Your task to perform on an android device: Open accessibility settings Image 0: 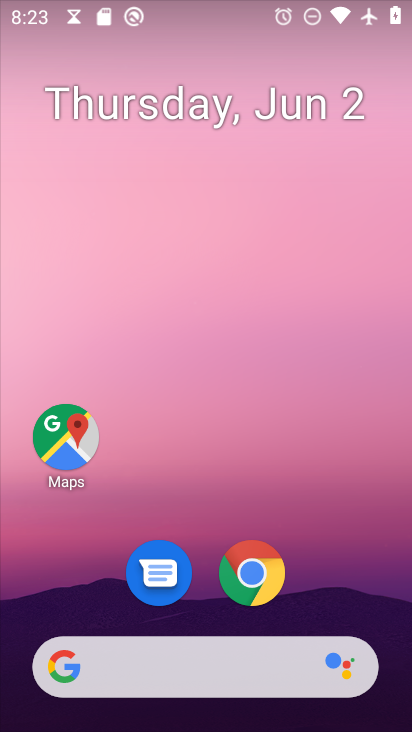
Step 0: drag from (205, 669) to (328, 105)
Your task to perform on an android device: Open accessibility settings Image 1: 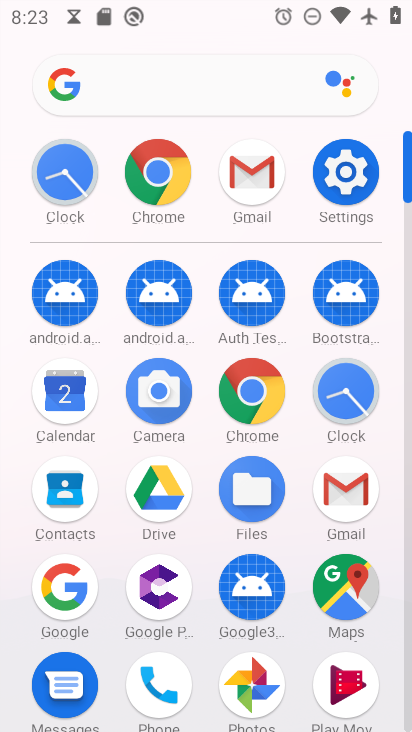
Step 1: click (349, 176)
Your task to perform on an android device: Open accessibility settings Image 2: 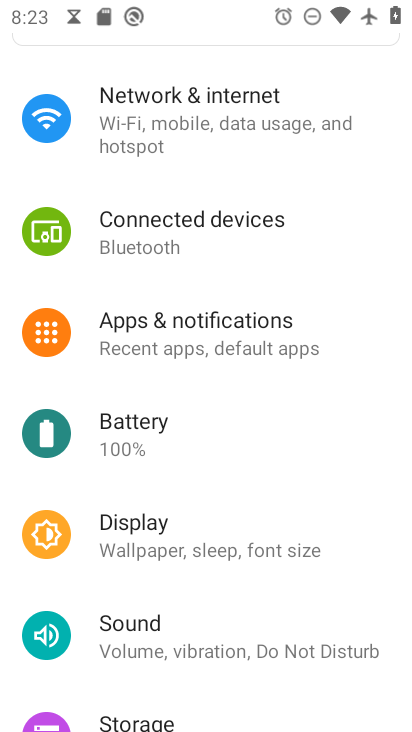
Step 2: drag from (212, 616) to (358, 73)
Your task to perform on an android device: Open accessibility settings Image 3: 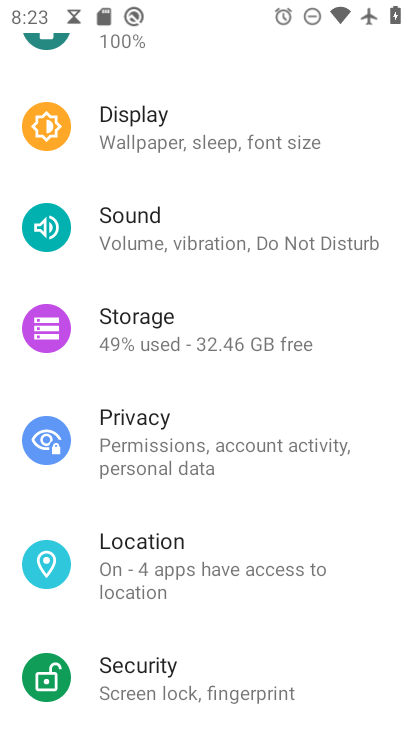
Step 3: drag from (239, 464) to (320, 33)
Your task to perform on an android device: Open accessibility settings Image 4: 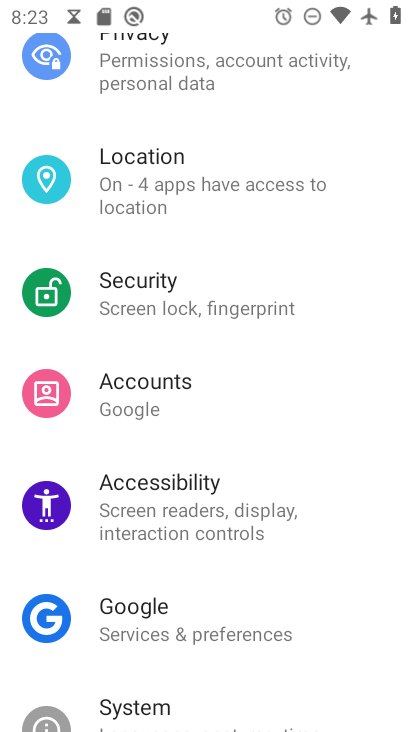
Step 4: click (134, 514)
Your task to perform on an android device: Open accessibility settings Image 5: 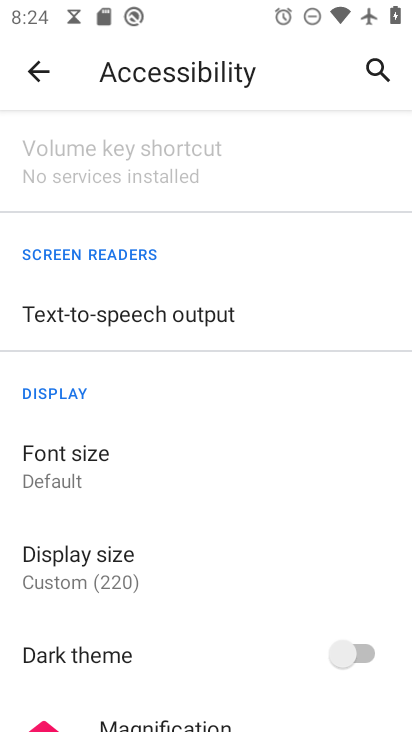
Step 5: task complete